Your task to perform on an android device: Open Yahoo.com Image 0: 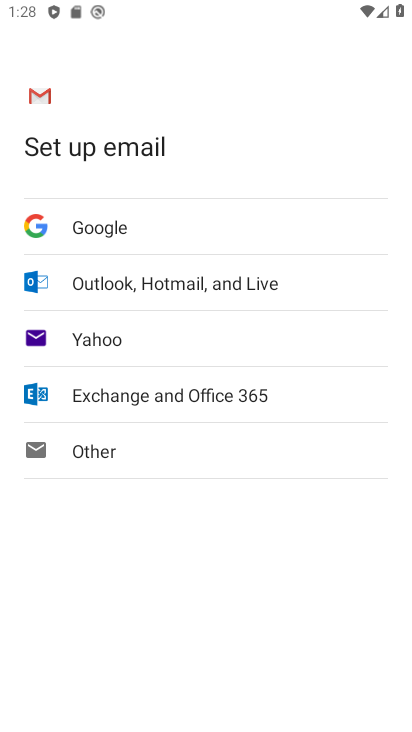
Step 0: press home button
Your task to perform on an android device: Open Yahoo.com Image 1: 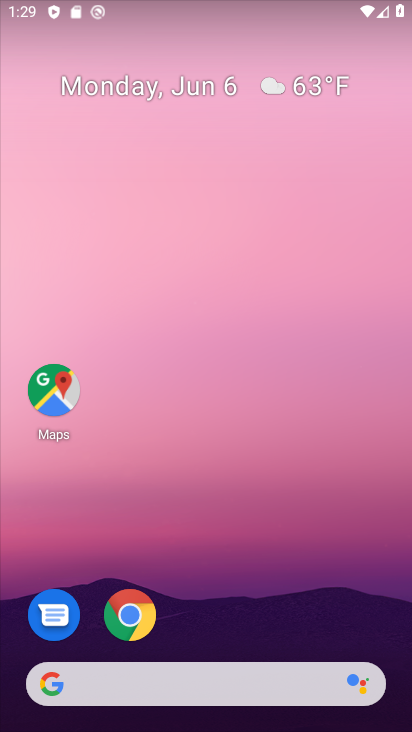
Step 1: click (147, 655)
Your task to perform on an android device: Open Yahoo.com Image 2: 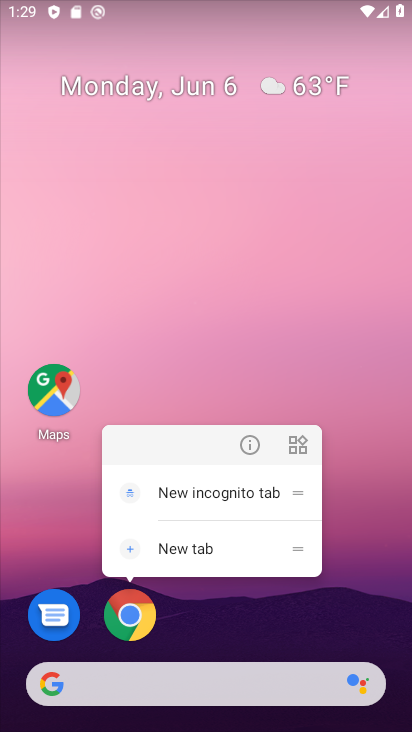
Step 2: click (142, 627)
Your task to perform on an android device: Open Yahoo.com Image 3: 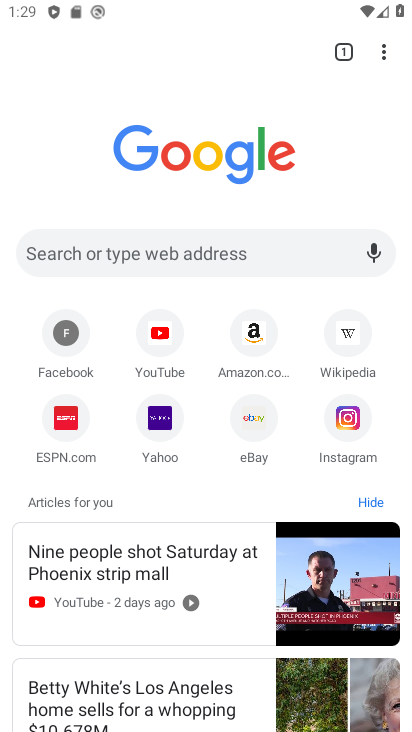
Step 3: click (171, 427)
Your task to perform on an android device: Open Yahoo.com Image 4: 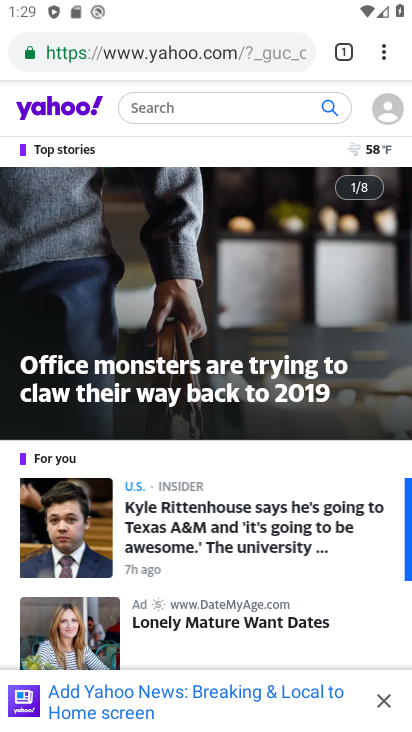
Step 4: task complete